Your task to perform on an android device: delete location history Image 0: 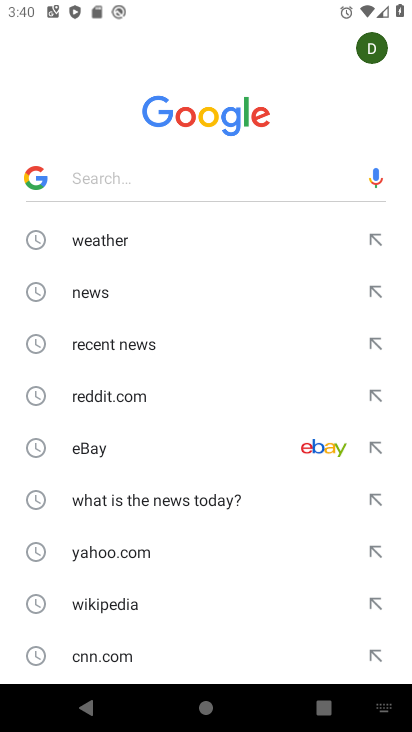
Step 0: press back button
Your task to perform on an android device: delete location history Image 1: 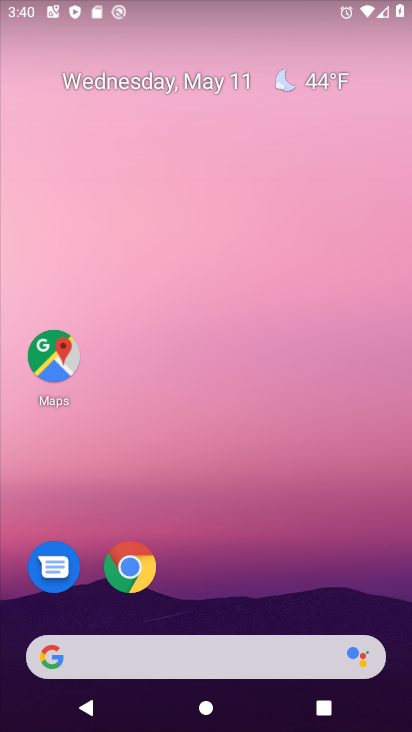
Step 1: drag from (259, 568) to (241, 40)
Your task to perform on an android device: delete location history Image 2: 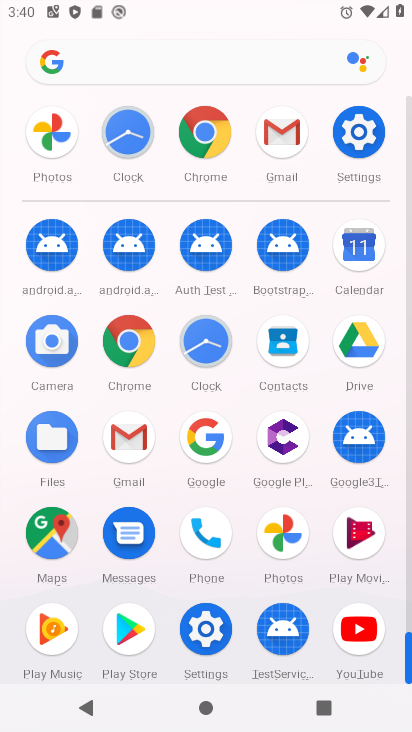
Step 2: drag from (10, 584) to (19, 207)
Your task to perform on an android device: delete location history Image 3: 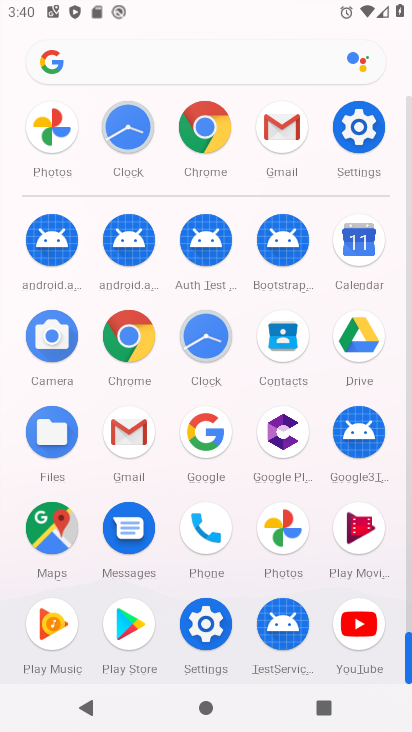
Step 3: click (208, 619)
Your task to perform on an android device: delete location history Image 4: 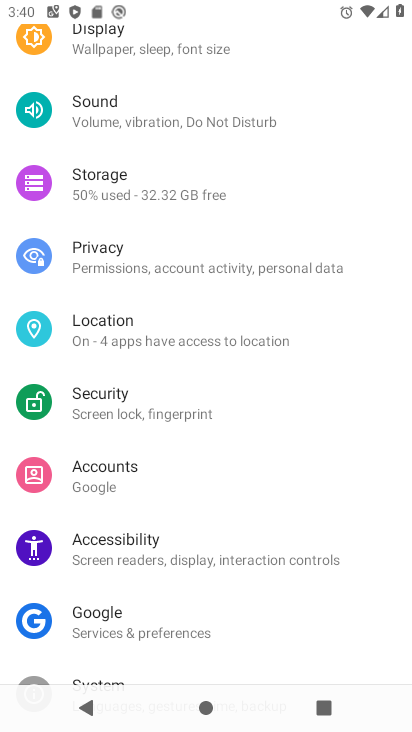
Step 4: drag from (277, 411) to (291, 85)
Your task to perform on an android device: delete location history Image 5: 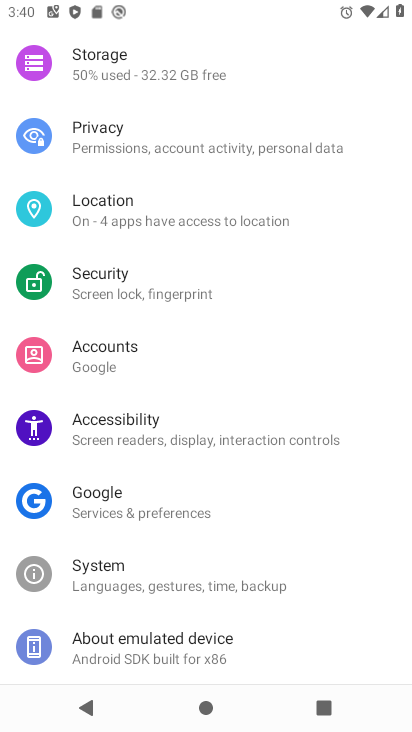
Step 5: drag from (243, 158) to (235, 73)
Your task to perform on an android device: delete location history Image 6: 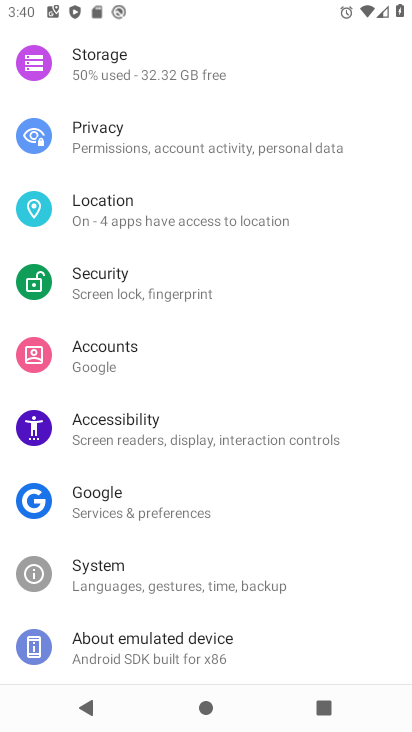
Step 6: click (159, 204)
Your task to perform on an android device: delete location history Image 7: 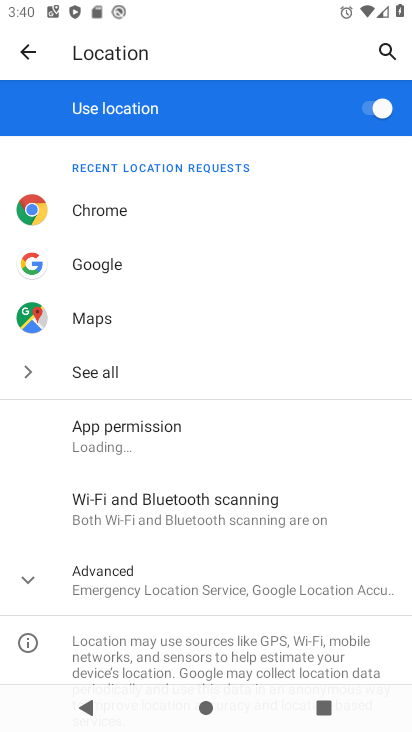
Step 7: click (54, 585)
Your task to perform on an android device: delete location history Image 8: 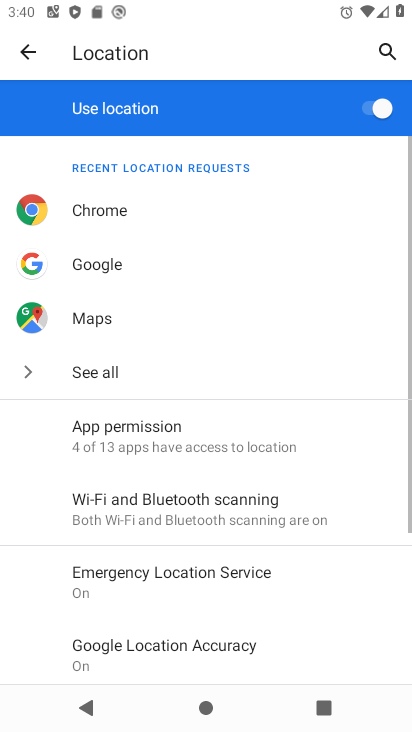
Step 8: drag from (281, 555) to (277, 192)
Your task to perform on an android device: delete location history Image 9: 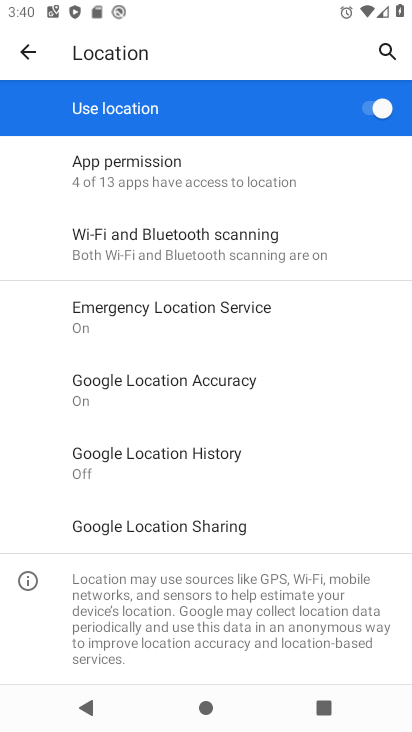
Step 9: click (170, 448)
Your task to perform on an android device: delete location history Image 10: 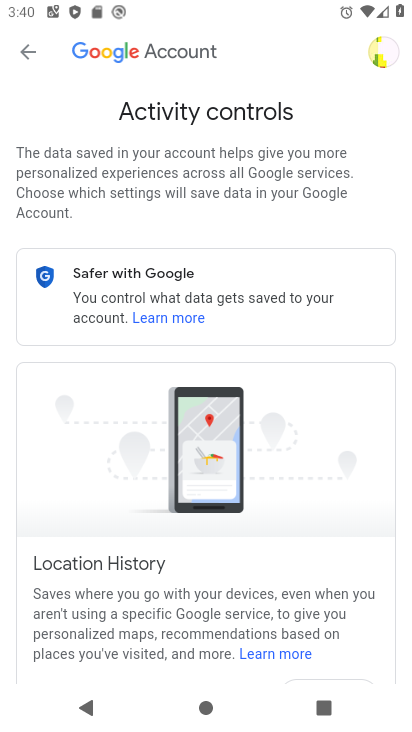
Step 10: drag from (108, 492) to (156, 117)
Your task to perform on an android device: delete location history Image 11: 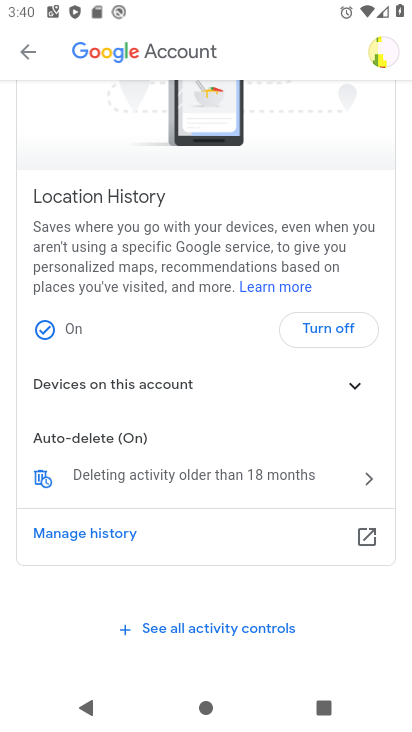
Step 11: drag from (198, 529) to (209, 224)
Your task to perform on an android device: delete location history Image 12: 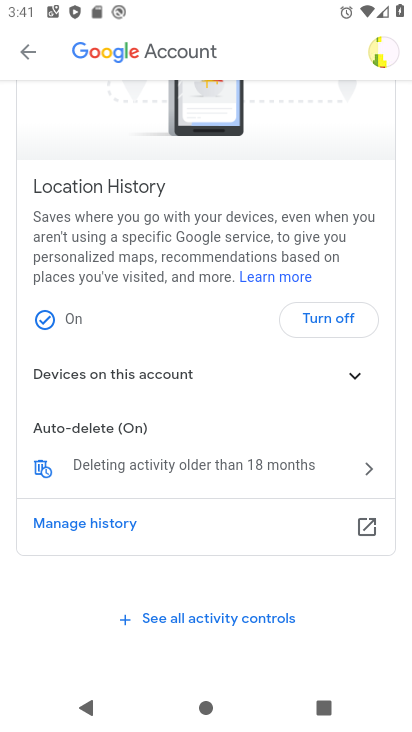
Step 12: click (127, 444)
Your task to perform on an android device: delete location history Image 13: 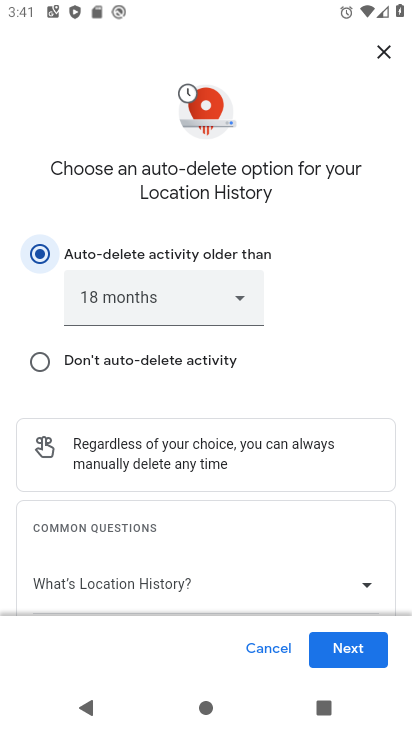
Step 13: click (324, 639)
Your task to perform on an android device: delete location history Image 14: 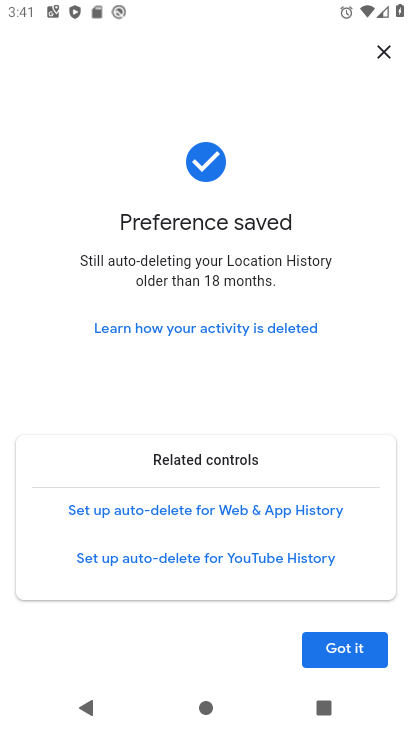
Step 14: task complete